Your task to perform on an android device: What's the weather? Image 0: 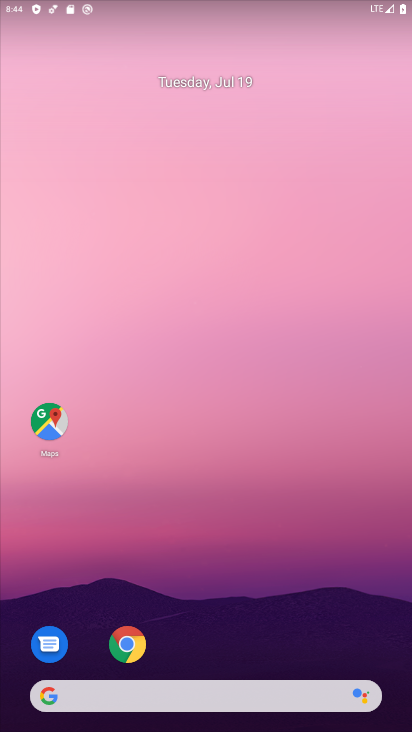
Step 0: click (128, 634)
Your task to perform on an android device: What's the weather? Image 1: 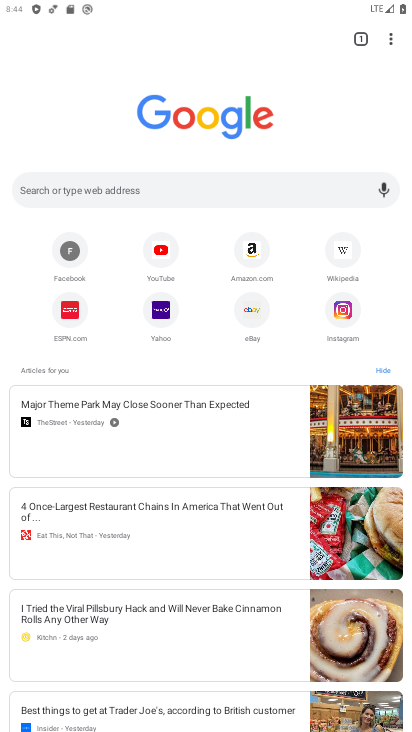
Step 1: click (291, 187)
Your task to perform on an android device: What's the weather? Image 2: 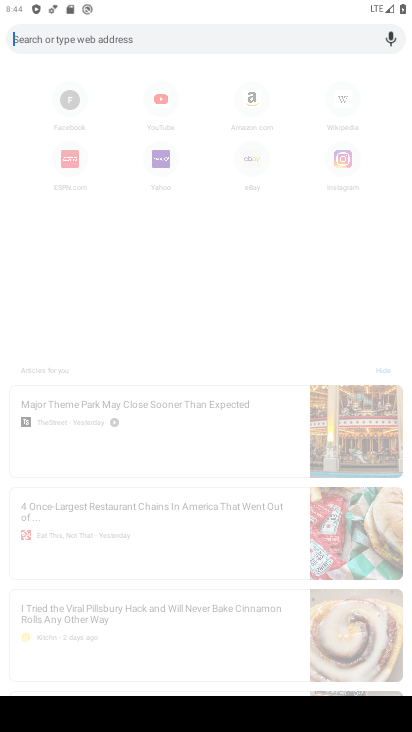
Step 2: type "What's the weather?"
Your task to perform on an android device: What's the weather? Image 3: 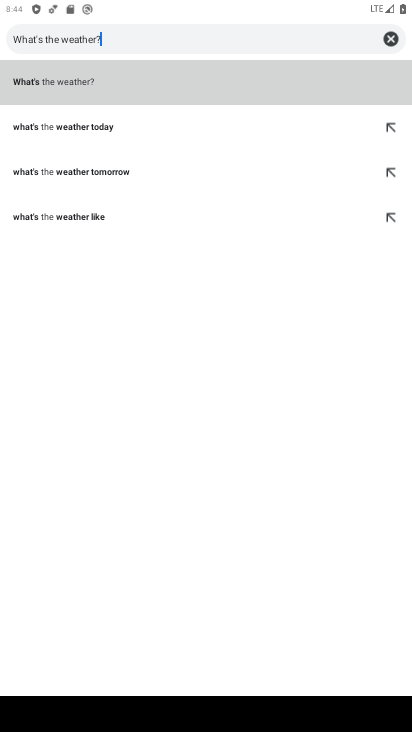
Step 3: click (65, 84)
Your task to perform on an android device: What's the weather? Image 4: 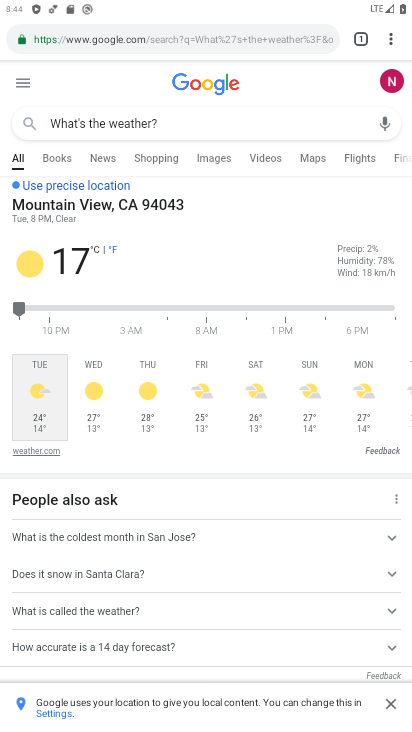
Step 4: task complete